Your task to perform on an android device: Open Google Chrome and click the shortcut for Amazon.com Image 0: 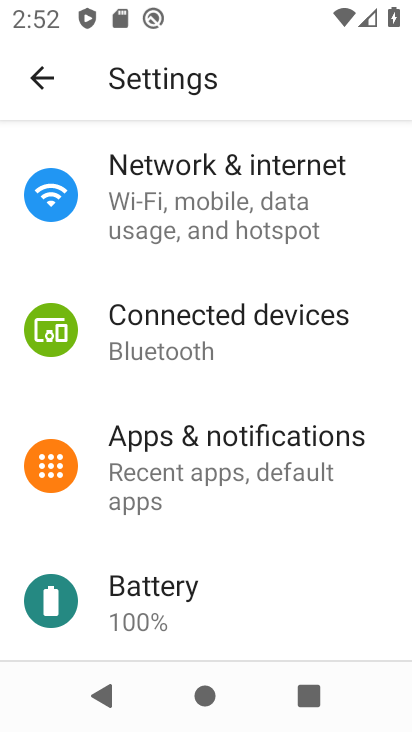
Step 0: press home button
Your task to perform on an android device: Open Google Chrome and click the shortcut for Amazon.com Image 1: 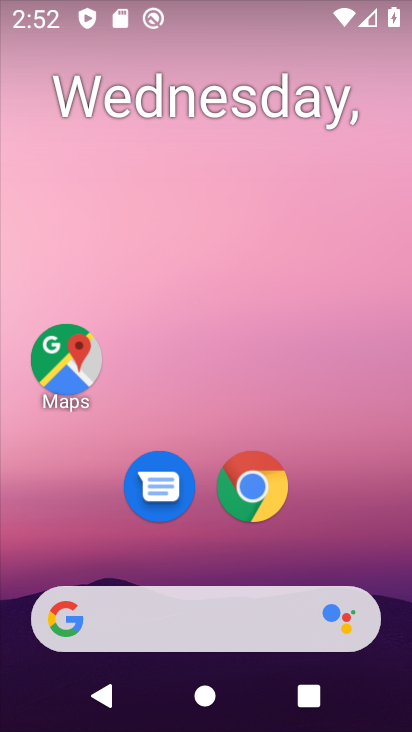
Step 1: drag from (193, 583) to (305, 101)
Your task to perform on an android device: Open Google Chrome and click the shortcut for Amazon.com Image 2: 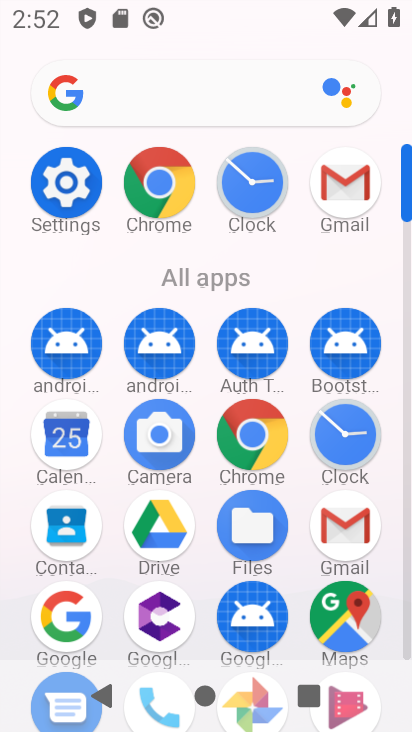
Step 2: click (267, 420)
Your task to perform on an android device: Open Google Chrome and click the shortcut for Amazon.com Image 3: 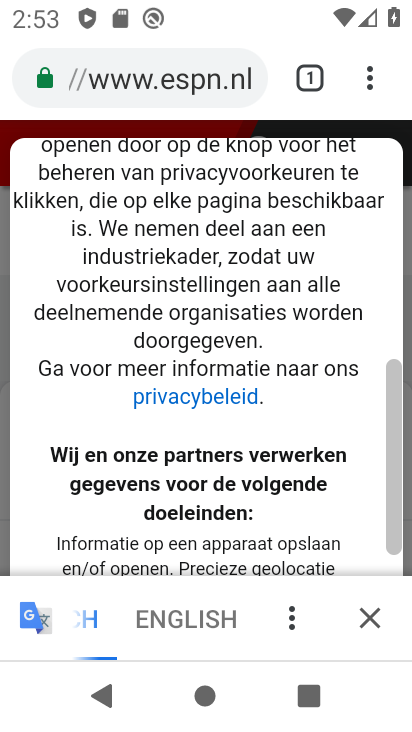
Step 3: click (306, 80)
Your task to perform on an android device: Open Google Chrome and click the shortcut for Amazon.com Image 4: 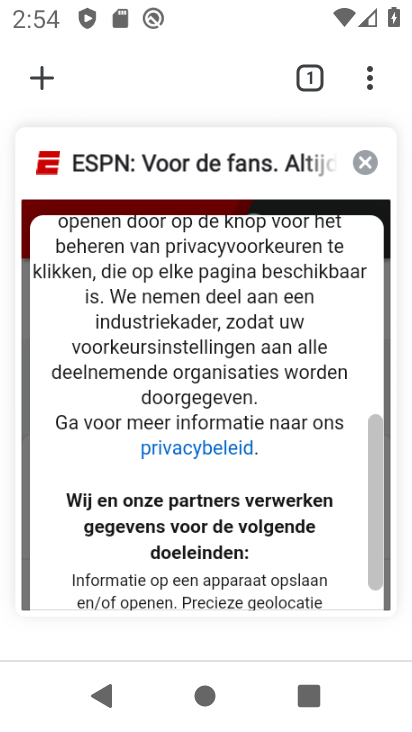
Step 4: click (364, 167)
Your task to perform on an android device: Open Google Chrome and click the shortcut for Amazon.com Image 5: 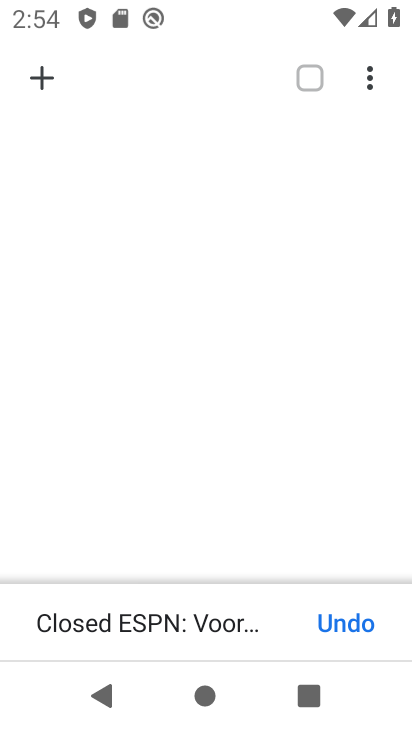
Step 5: click (43, 79)
Your task to perform on an android device: Open Google Chrome and click the shortcut for Amazon.com Image 6: 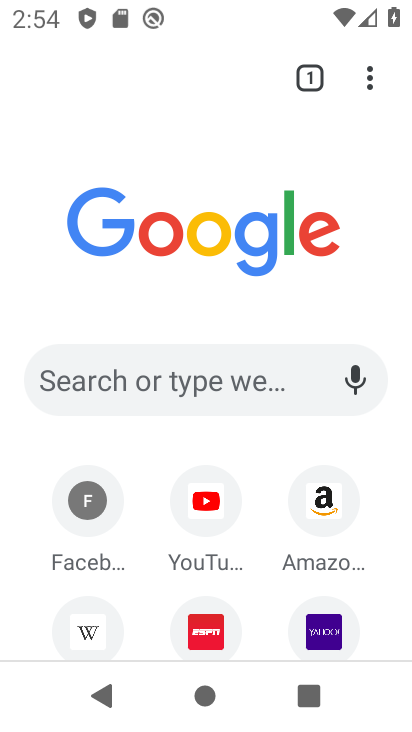
Step 6: click (327, 499)
Your task to perform on an android device: Open Google Chrome and click the shortcut for Amazon.com Image 7: 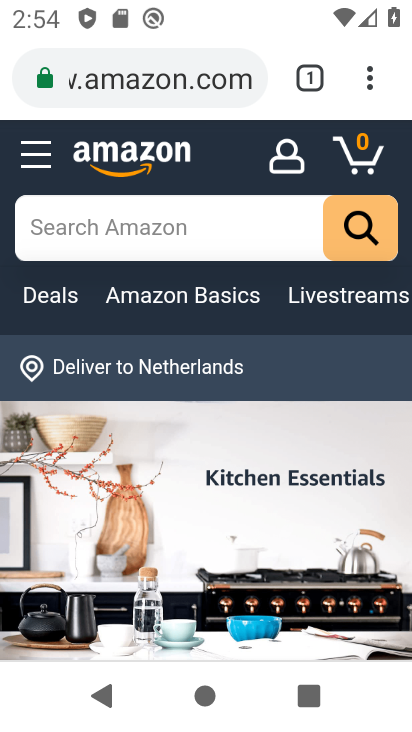
Step 7: task complete